Your task to perform on an android device: Open Google Chrome and open the bookmarks view Image 0: 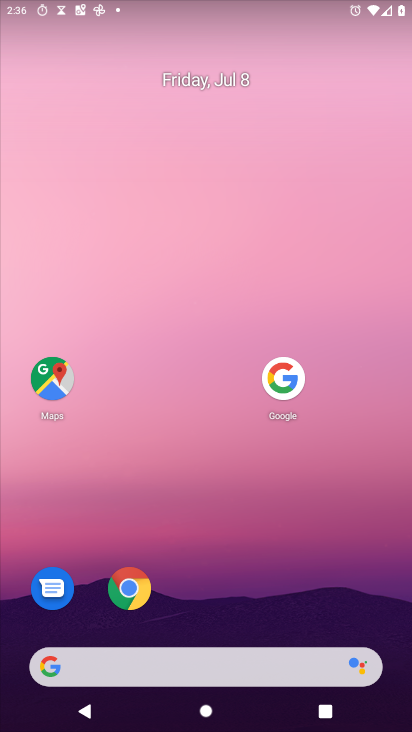
Step 0: drag from (133, 660) to (225, 185)
Your task to perform on an android device: Open Google Chrome and open the bookmarks view Image 1: 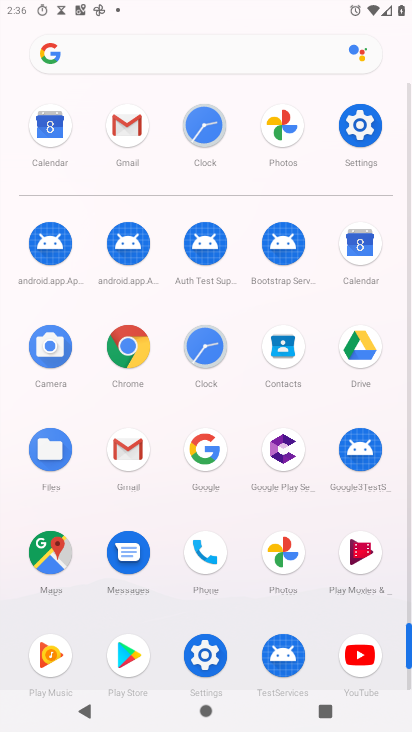
Step 1: click (132, 344)
Your task to perform on an android device: Open Google Chrome and open the bookmarks view Image 2: 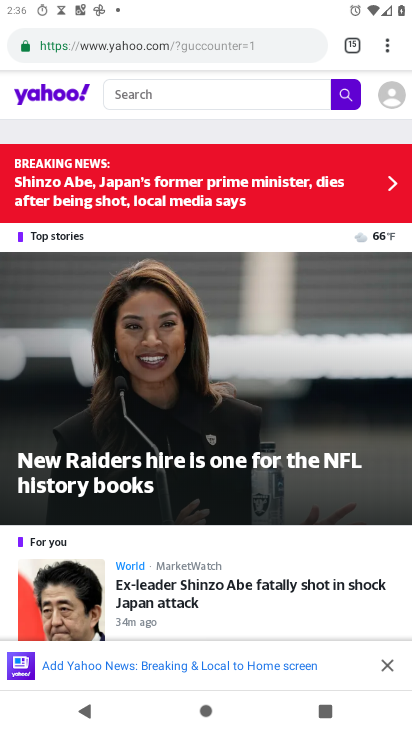
Step 2: task complete